Your task to perform on an android device: Go to accessibility settings Image 0: 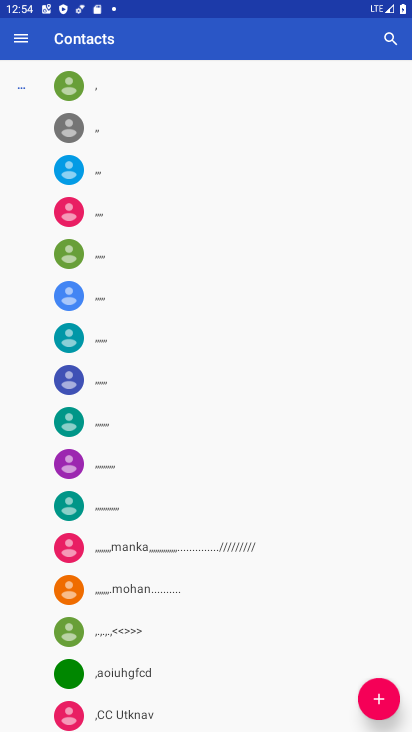
Step 0: press home button
Your task to perform on an android device: Go to accessibility settings Image 1: 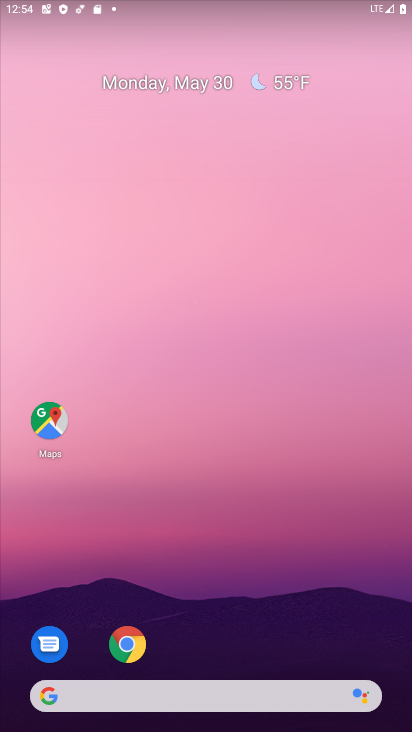
Step 1: drag from (267, 622) to (290, 133)
Your task to perform on an android device: Go to accessibility settings Image 2: 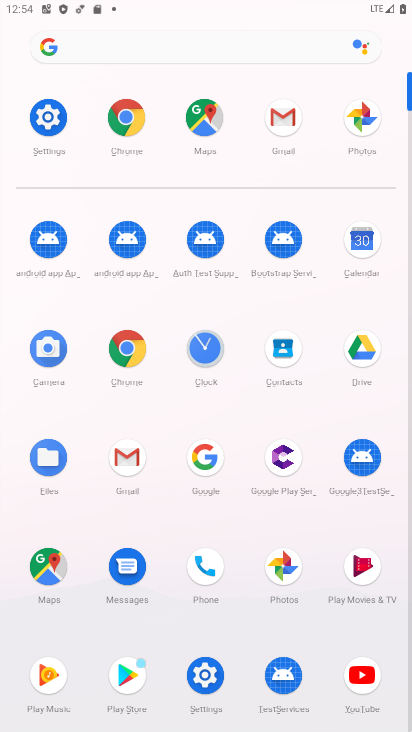
Step 2: click (62, 137)
Your task to perform on an android device: Go to accessibility settings Image 3: 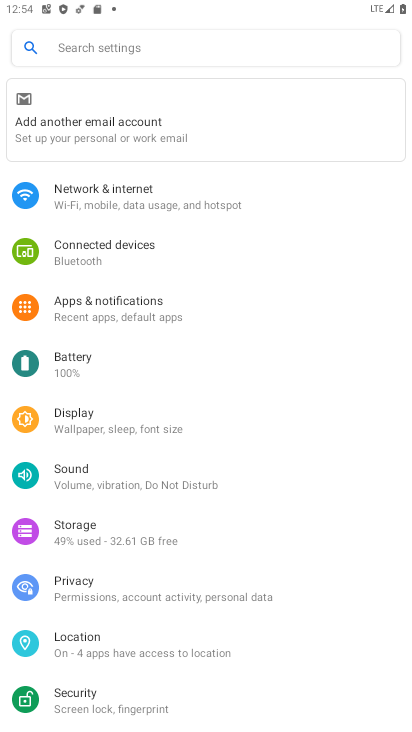
Step 3: drag from (163, 622) to (176, 388)
Your task to perform on an android device: Go to accessibility settings Image 4: 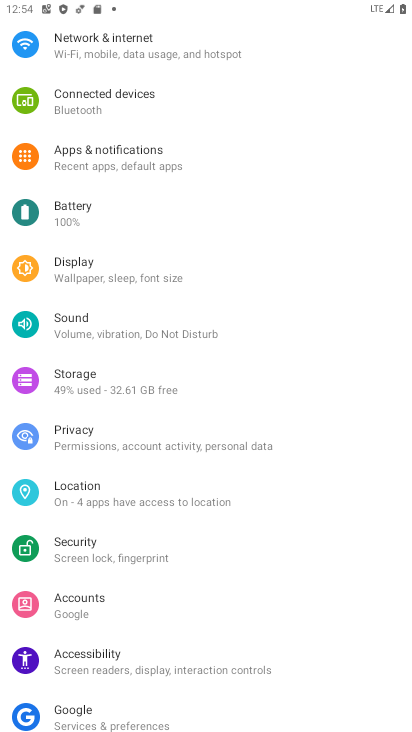
Step 4: click (166, 668)
Your task to perform on an android device: Go to accessibility settings Image 5: 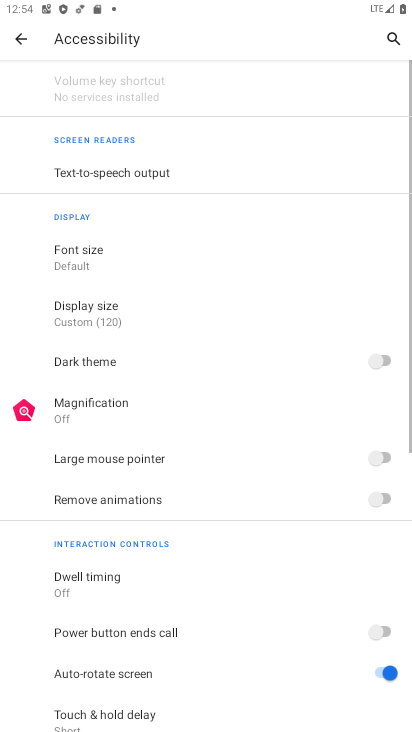
Step 5: task complete